Your task to perform on an android device: turn off priority inbox in the gmail app Image 0: 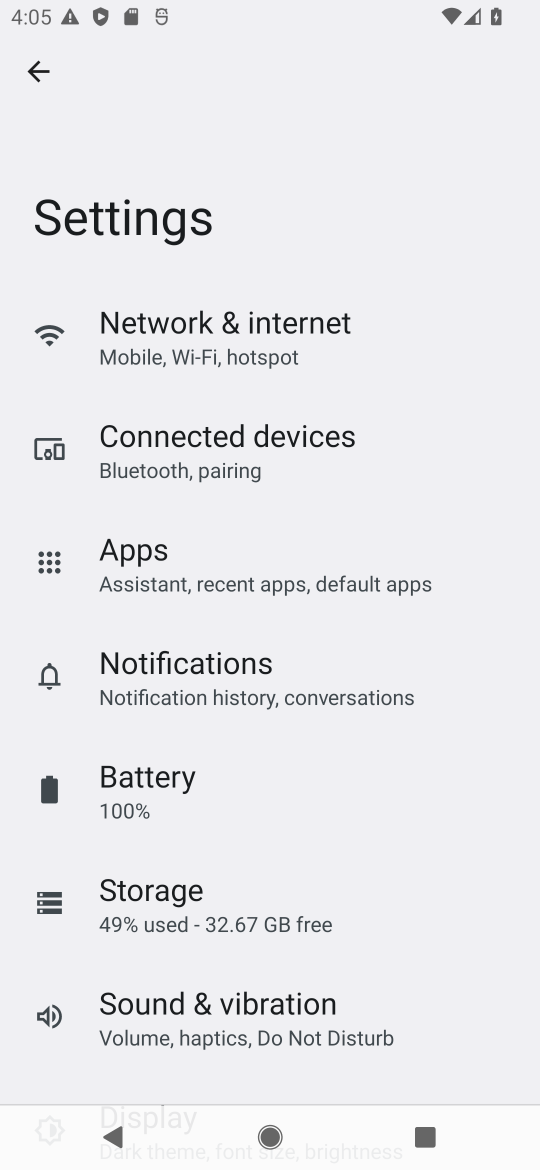
Step 0: press home button
Your task to perform on an android device: turn off priority inbox in the gmail app Image 1: 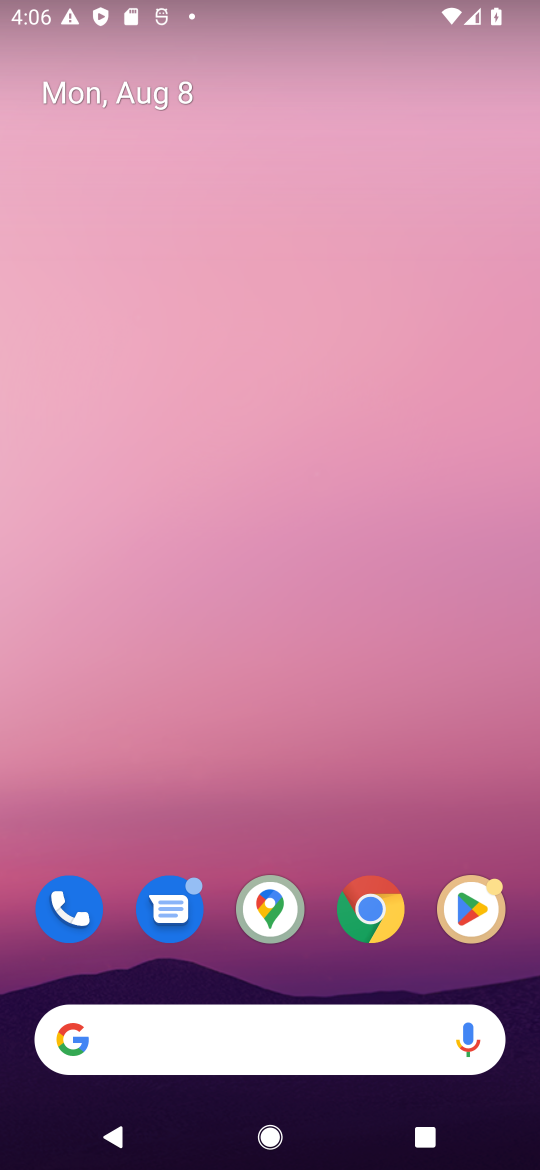
Step 1: drag from (303, 1048) to (528, 280)
Your task to perform on an android device: turn off priority inbox in the gmail app Image 2: 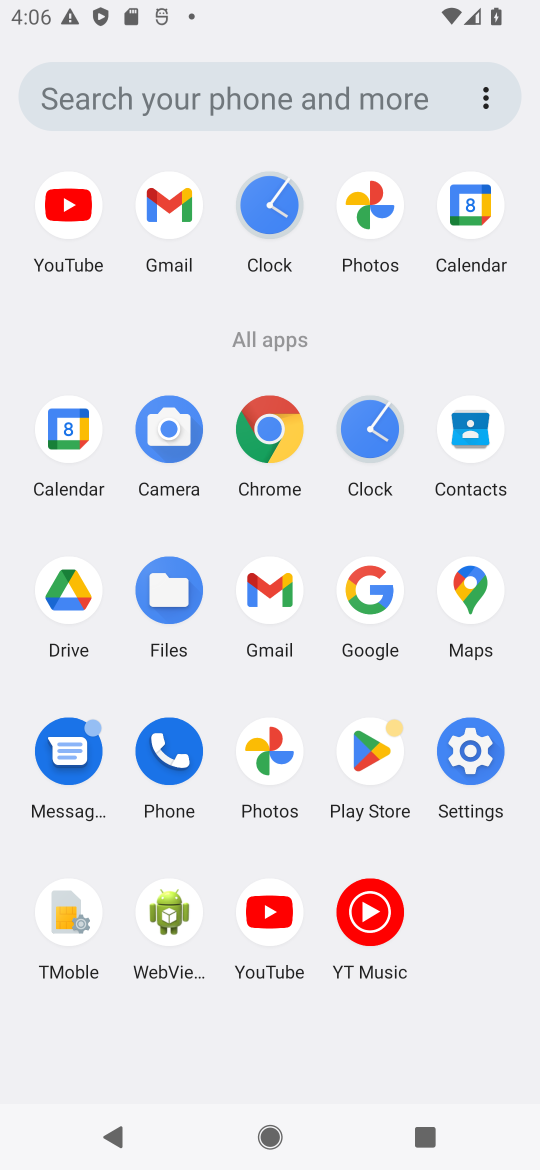
Step 2: click (169, 211)
Your task to perform on an android device: turn off priority inbox in the gmail app Image 3: 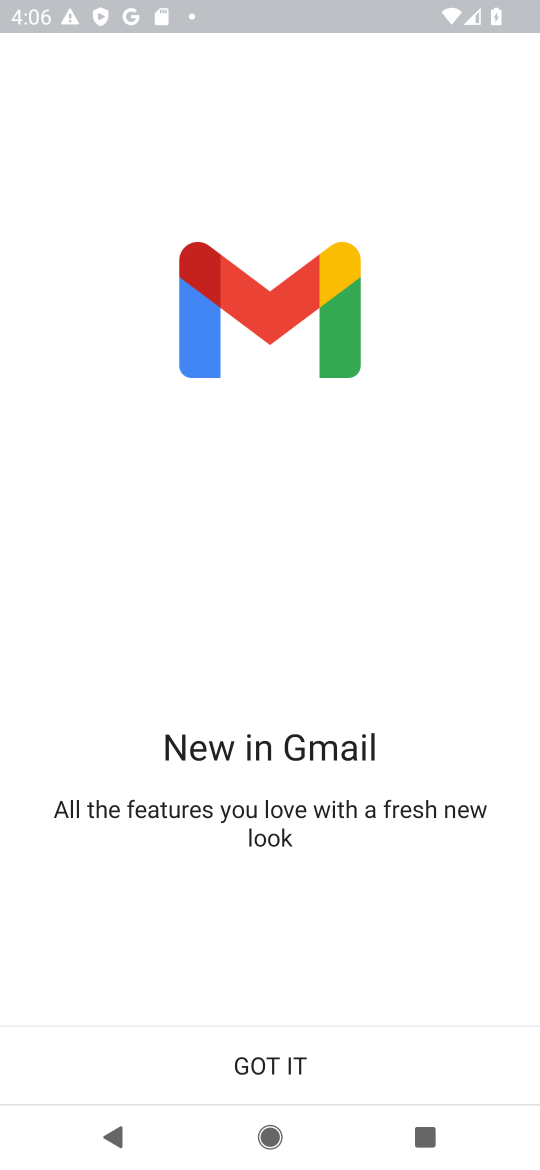
Step 3: click (262, 1066)
Your task to perform on an android device: turn off priority inbox in the gmail app Image 4: 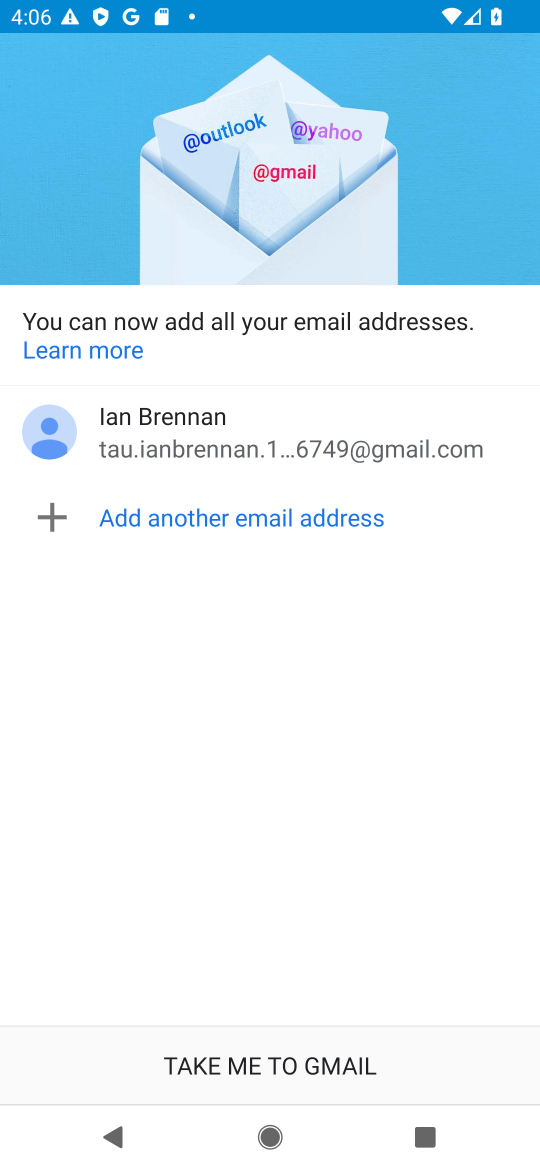
Step 4: click (291, 1067)
Your task to perform on an android device: turn off priority inbox in the gmail app Image 5: 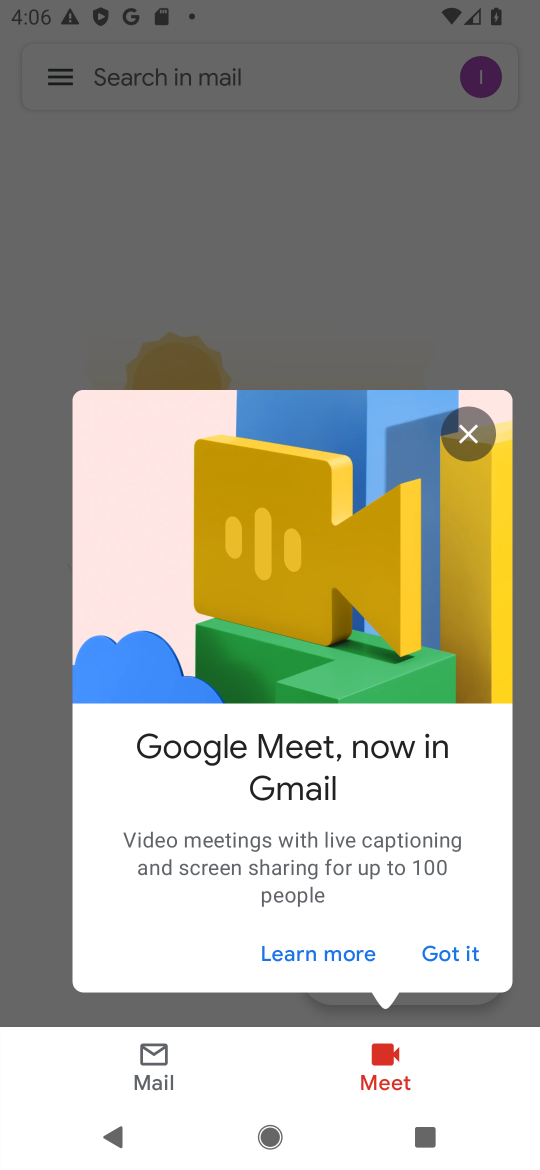
Step 5: click (457, 948)
Your task to perform on an android device: turn off priority inbox in the gmail app Image 6: 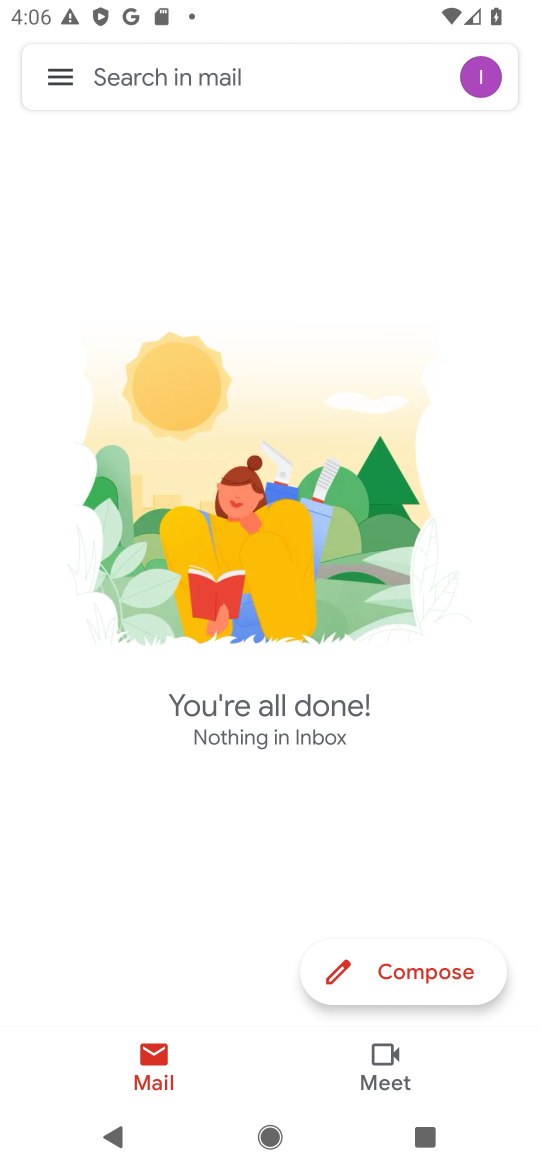
Step 6: click (53, 74)
Your task to perform on an android device: turn off priority inbox in the gmail app Image 7: 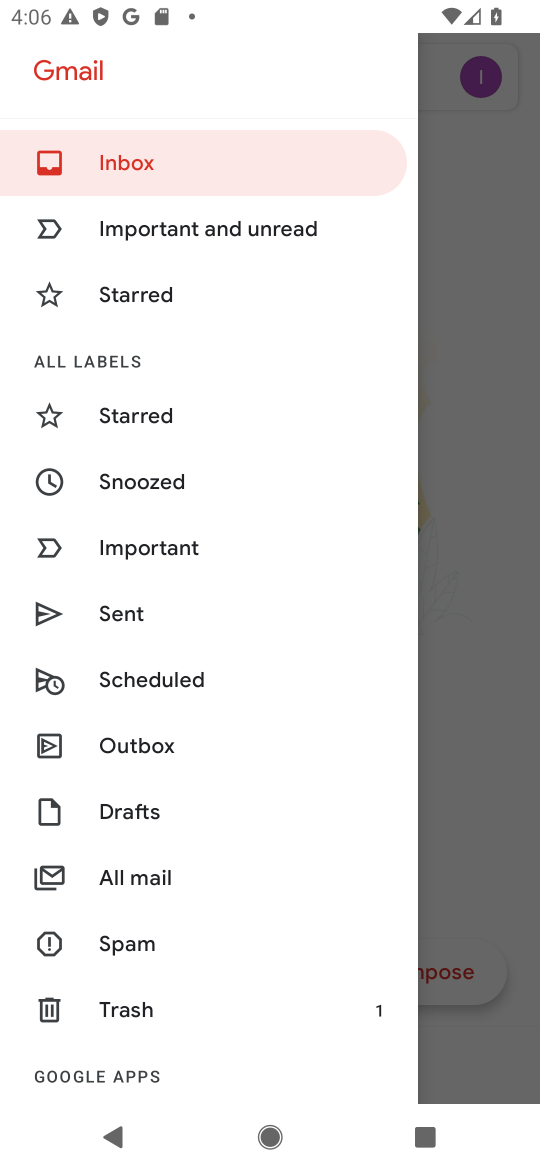
Step 7: drag from (210, 1012) to (260, 306)
Your task to perform on an android device: turn off priority inbox in the gmail app Image 8: 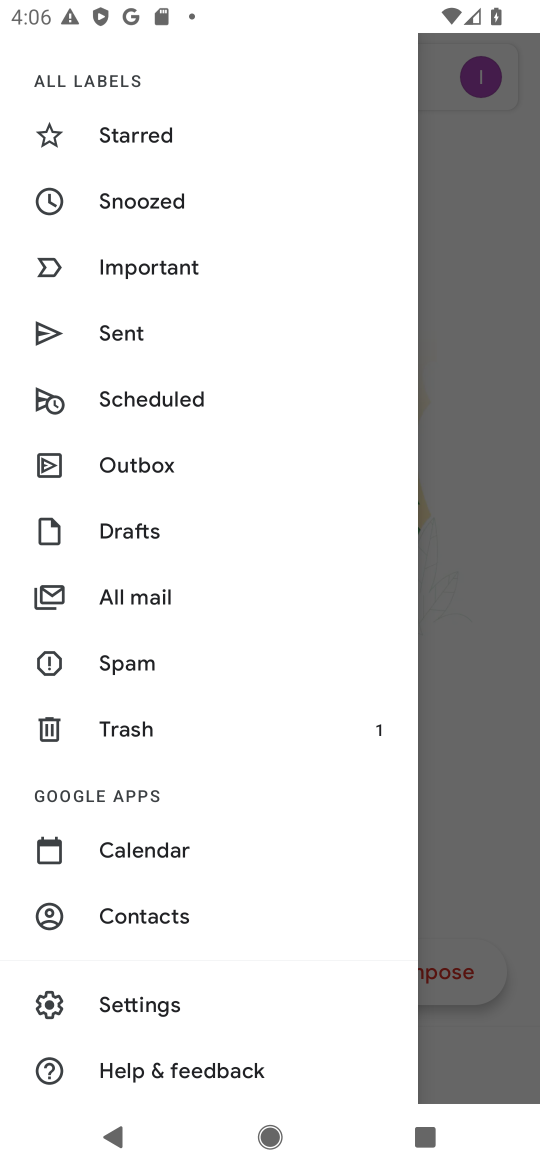
Step 8: click (145, 1012)
Your task to perform on an android device: turn off priority inbox in the gmail app Image 9: 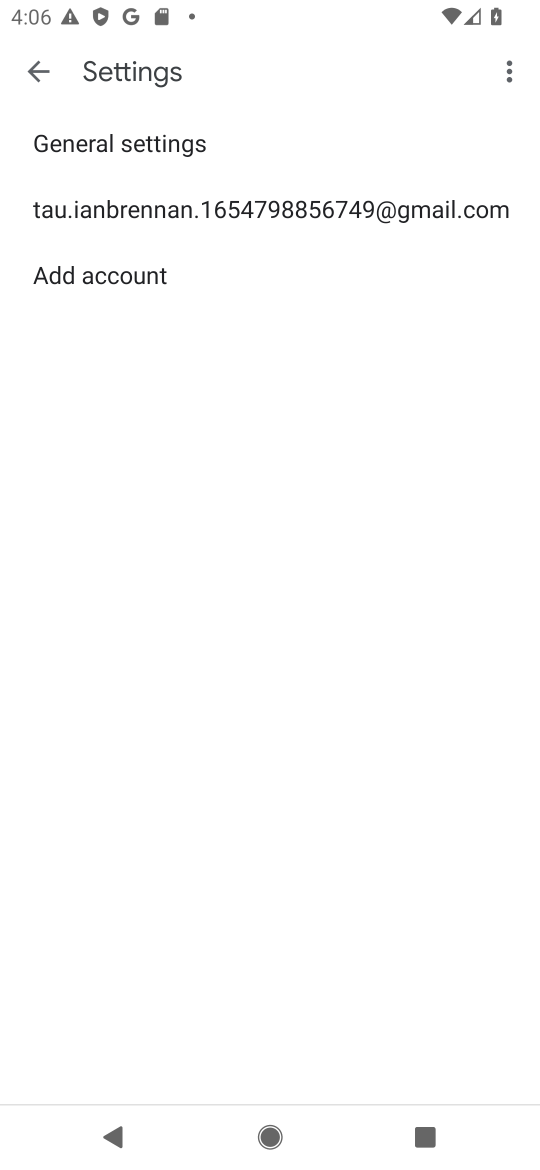
Step 9: click (283, 211)
Your task to perform on an android device: turn off priority inbox in the gmail app Image 10: 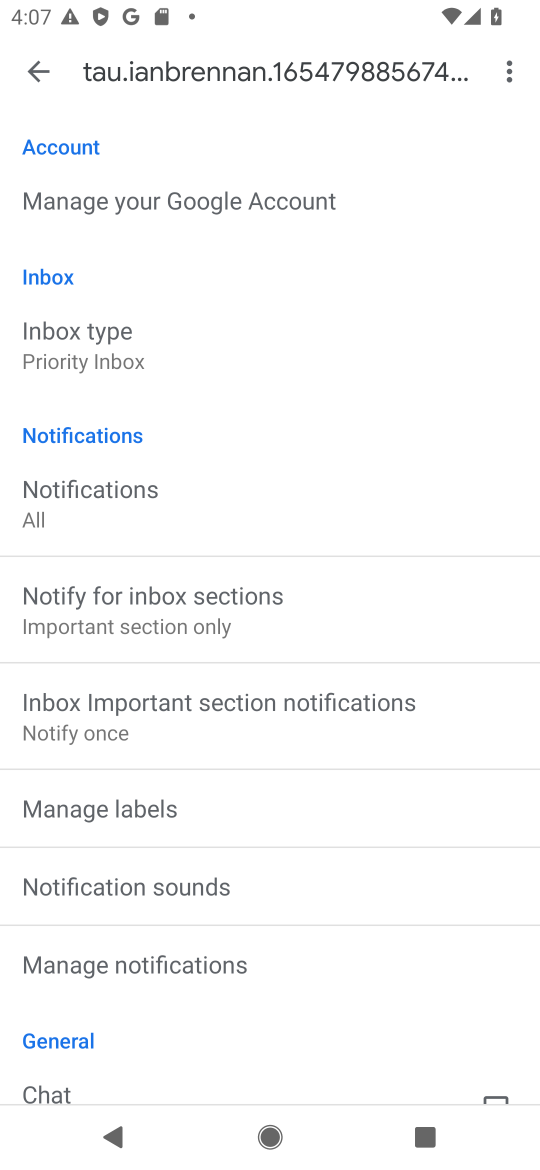
Step 10: click (105, 347)
Your task to perform on an android device: turn off priority inbox in the gmail app Image 11: 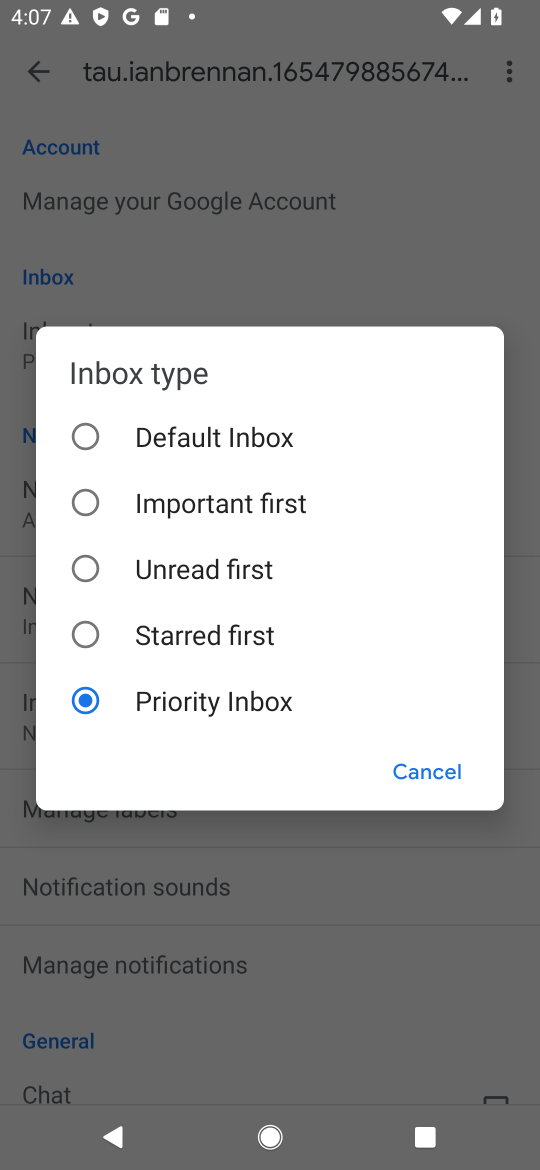
Step 11: click (86, 427)
Your task to perform on an android device: turn off priority inbox in the gmail app Image 12: 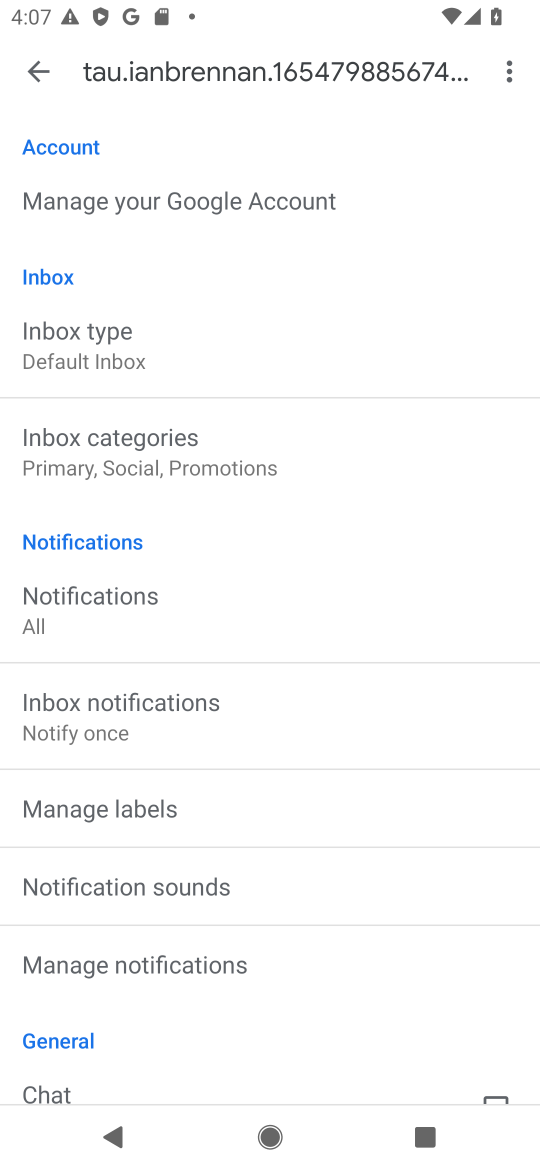
Step 12: task complete